Your task to perform on an android device: refresh tabs in the chrome app Image 0: 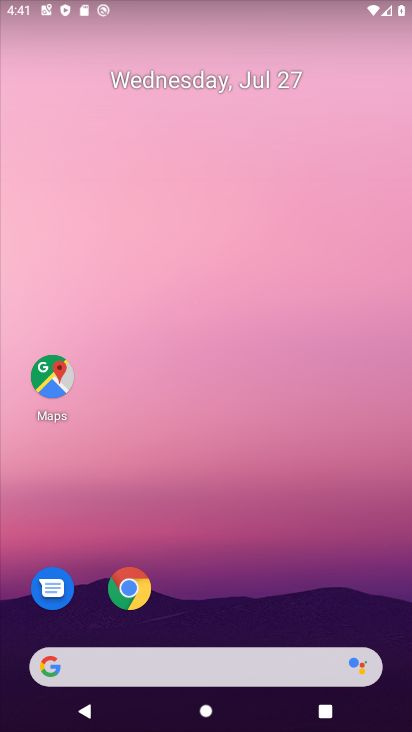
Step 0: drag from (244, 727) to (242, 242)
Your task to perform on an android device: refresh tabs in the chrome app Image 1: 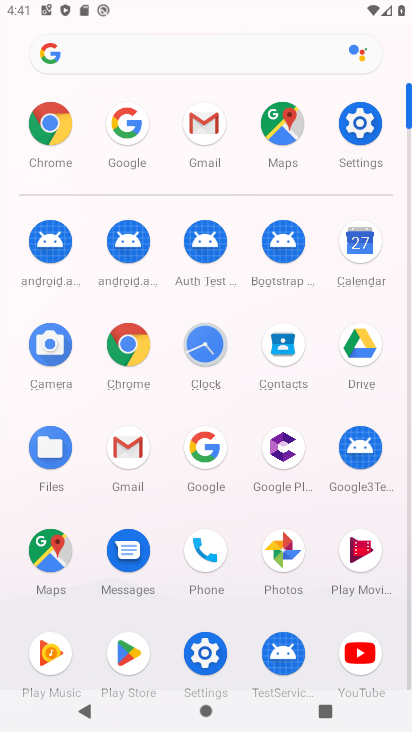
Step 1: click (129, 345)
Your task to perform on an android device: refresh tabs in the chrome app Image 2: 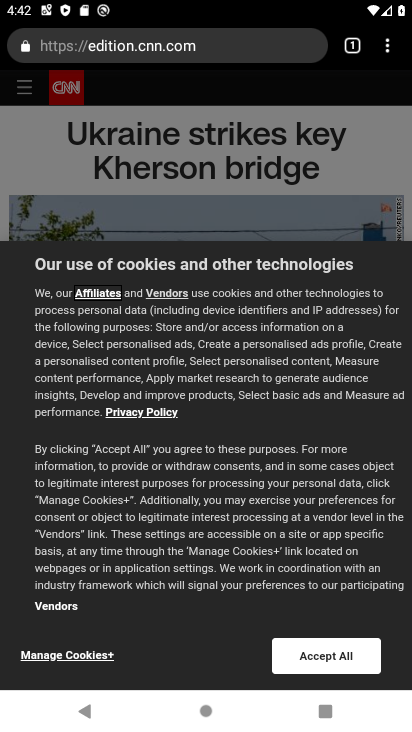
Step 2: click (388, 55)
Your task to perform on an android device: refresh tabs in the chrome app Image 3: 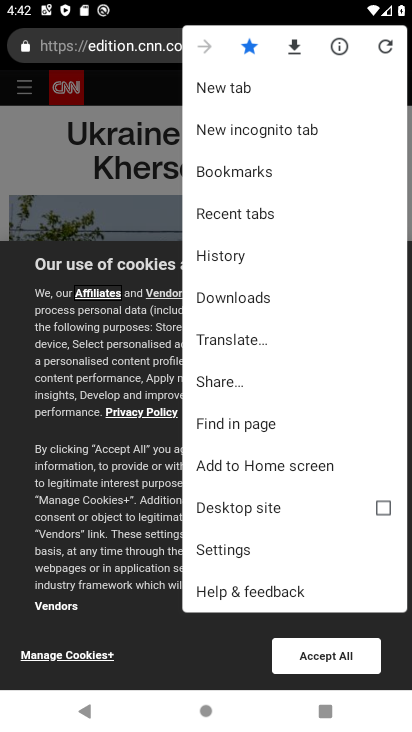
Step 3: click (386, 42)
Your task to perform on an android device: refresh tabs in the chrome app Image 4: 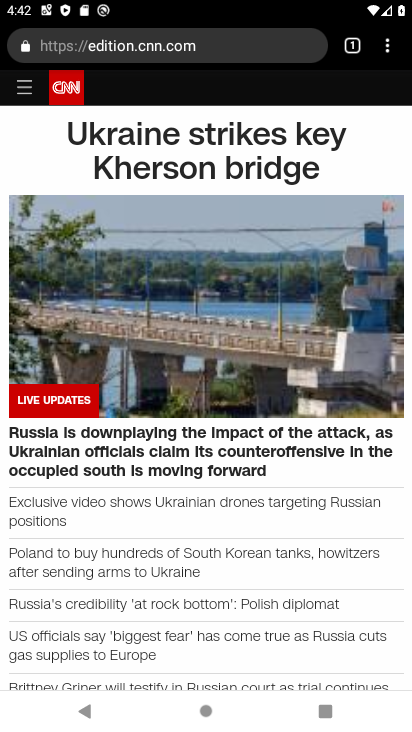
Step 4: task complete